Your task to perform on an android device: turn on priority inbox in the gmail app Image 0: 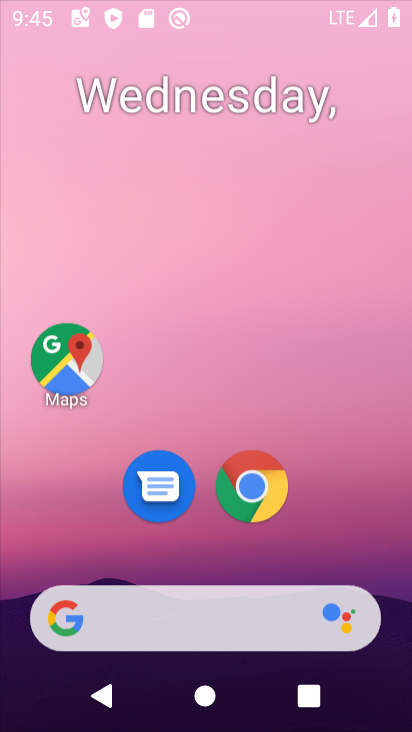
Step 0: click (256, 126)
Your task to perform on an android device: turn on priority inbox in the gmail app Image 1: 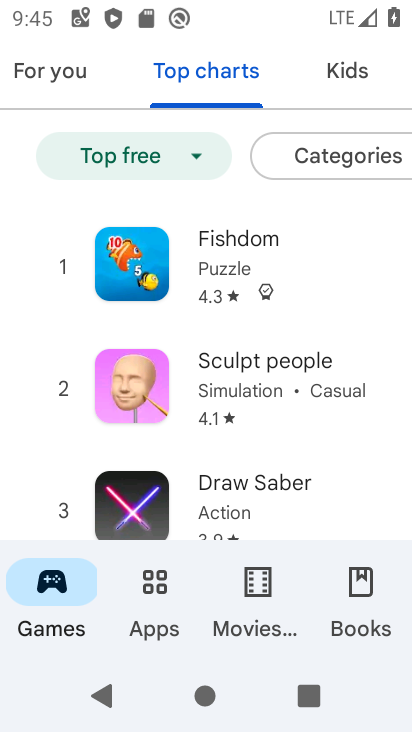
Step 1: press home button
Your task to perform on an android device: turn on priority inbox in the gmail app Image 2: 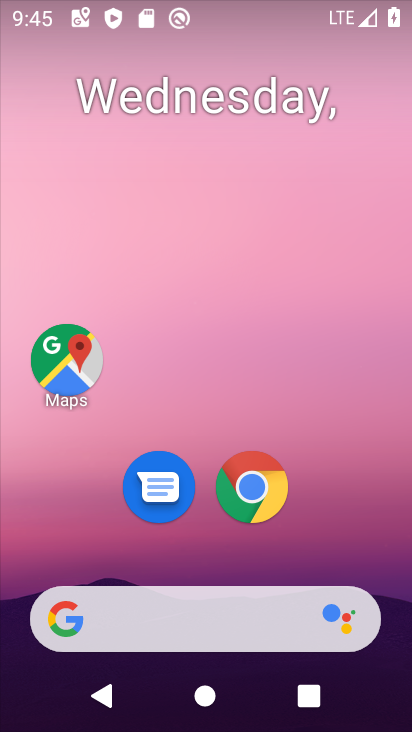
Step 2: drag from (325, 537) to (242, 108)
Your task to perform on an android device: turn on priority inbox in the gmail app Image 3: 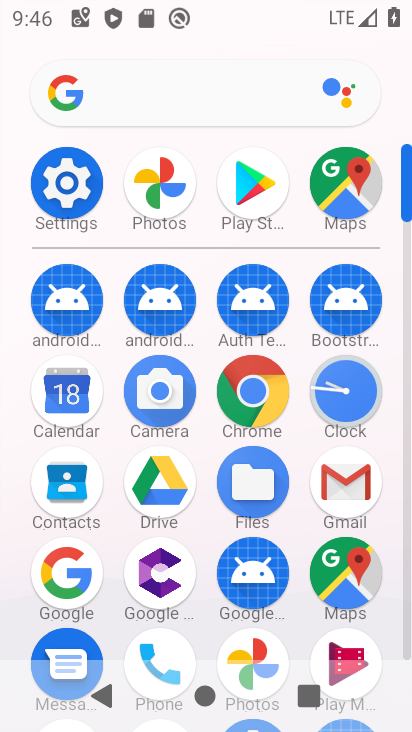
Step 3: click (345, 477)
Your task to perform on an android device: turn on priority inbox in the gmail app Image 4: 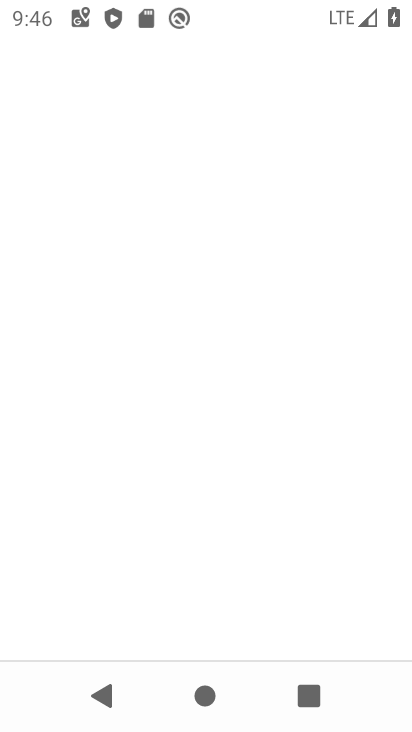
Step 4: click (345, 477)
Your task to perform on an android device: turn on priority inbox in the gmail app Image 5: 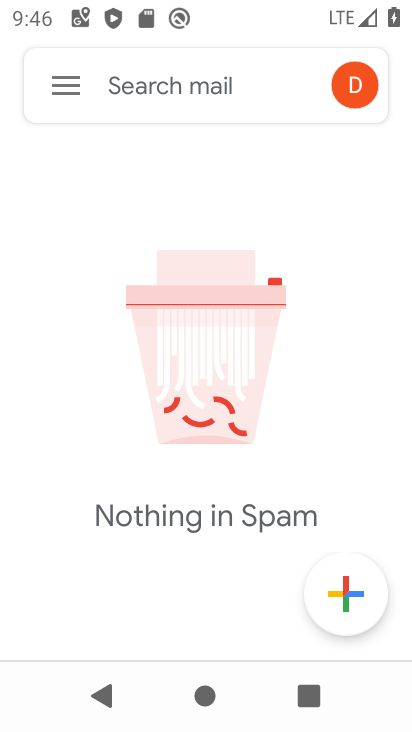
Step 5: click (60, 77)
Your task to perform on an android device: turn on priority inbox in the gmail app Image 6: 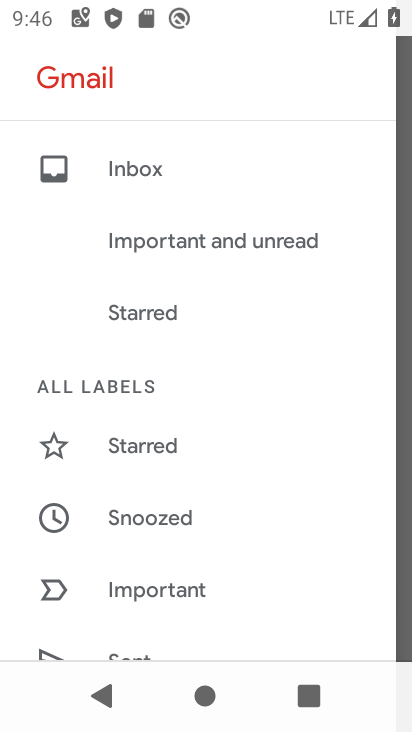
Step 6: drag from (222, 560) to (211, 291)
Your task to perform on an android device: turn on priority inbox in the gmail app Image 7: 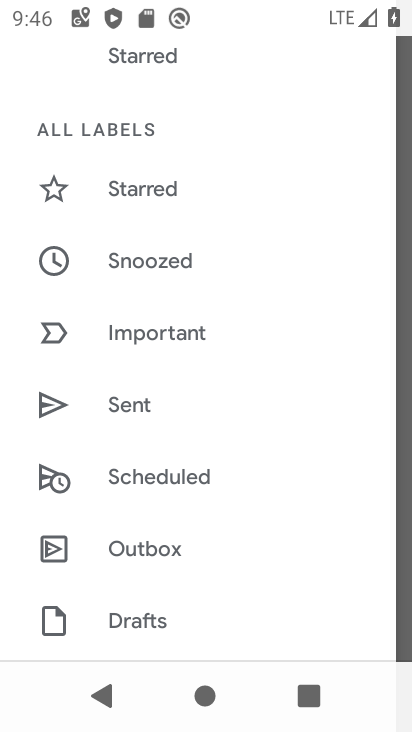
Step 7: drag from (236, 503) to (227, 184)
Your task to perform on an android device: turn on priority inbox in the gmail app Image 8: 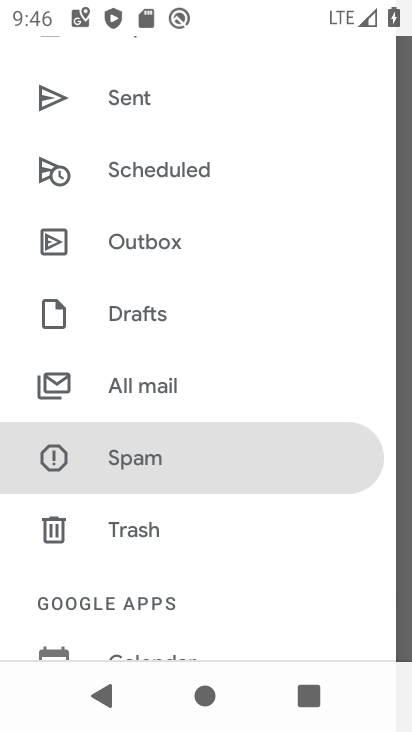
Step 8: drag from (189, 526) to (189, 210)
Your task to perform on an android device: turn on priority inbox in the gmail app Image 9: 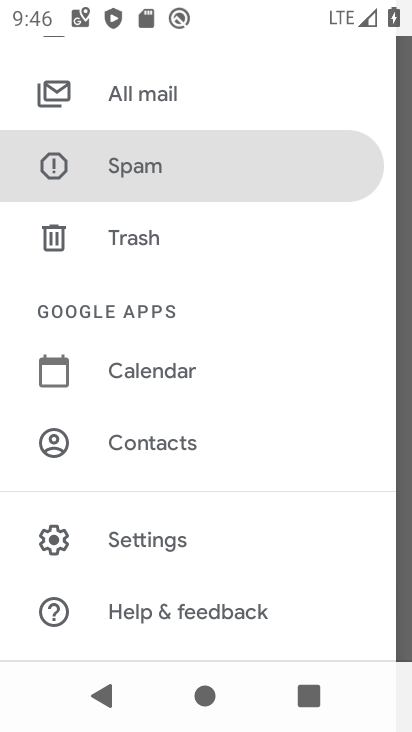
Step 9: click (119, 534)
Your task to perform on an android device: turn on priority inbox in the gmail app Image 10: 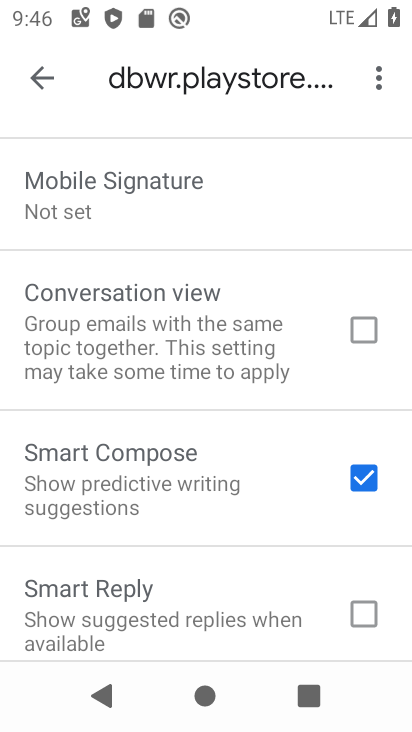
Step 10: drag from (236, 175) to (166, 723)
Your task to perform on an android device: turn on priority inbox in the gmail app Image 11: 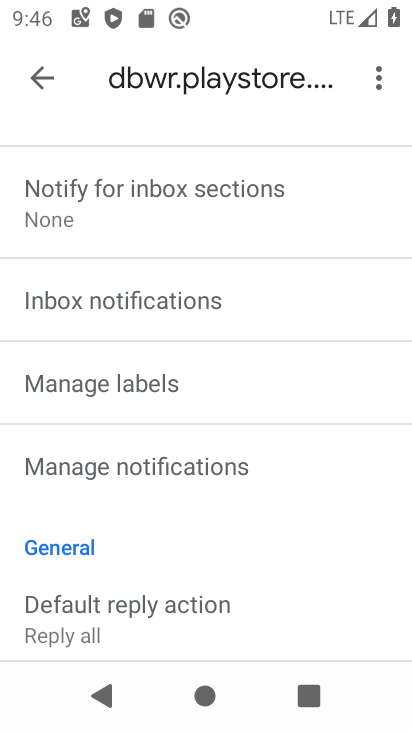
Step 11: drag from (179, 216) to (297, 680)
Your task to perform on an android device: turn on priority inbox in the gmail app Image 12: 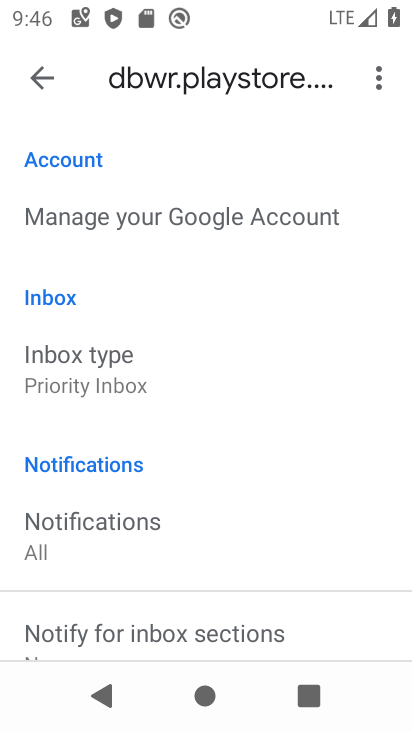
Step 12: click (69, 365)
Your task to perform on an android device: turn on priority inbox in the gmail app Image 13: 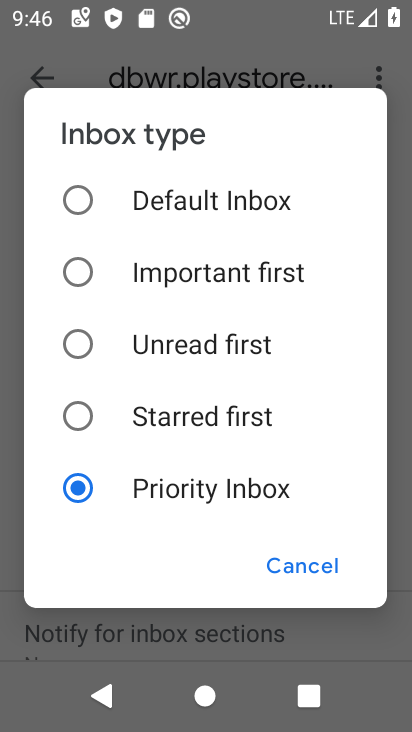
Step 13: task complete